Your task to perform on an android device: Search for macbook pro 15 inch on walmart.com, select the first entry, add it to the cart, then select checkout. Image 0: 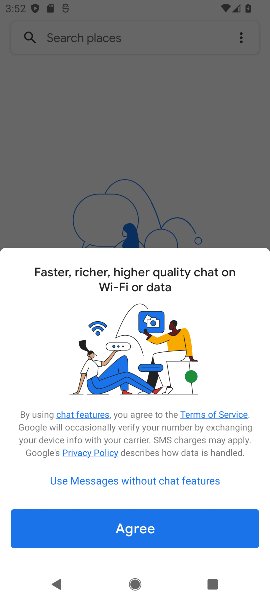
Step 0: press home button
Your task to perform on an android device: Search for macbook pro 15 inch on walmart.com, select the first entry, add it to the cart, then select checkout. Image 1: 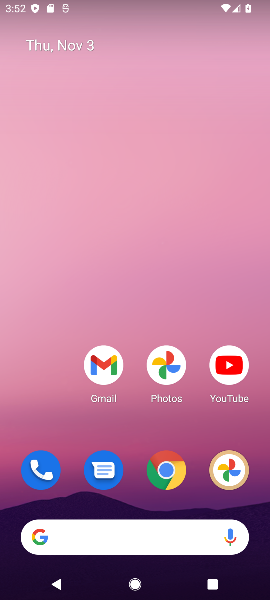
Step 1: click (156, 469)
Your task to perform on an android device: Search for macbook pro 15 inch on walmart.com, select the first entry, add it to the cart, then select checkout. Image 2: 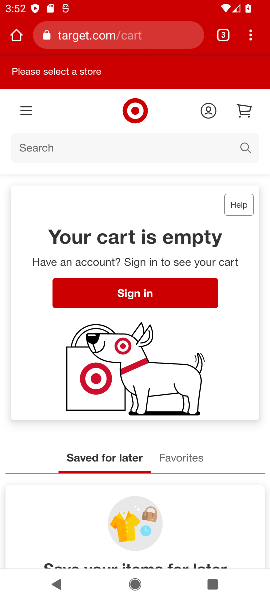
Step 2: click (226, 31)
Your task to perform on an android device: Search for macbook pro 15 inch on walmart.com, select the first entry, add it to the cart, then select checkout. Image 3: 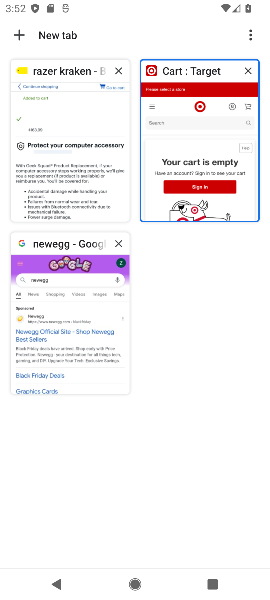
Step 3: click (15, 41)
Your task to perform on an android device: Search for macbook pro 15 inch on walmart.com, select the first entry, add it to the cart, then select checkout. Image 4: 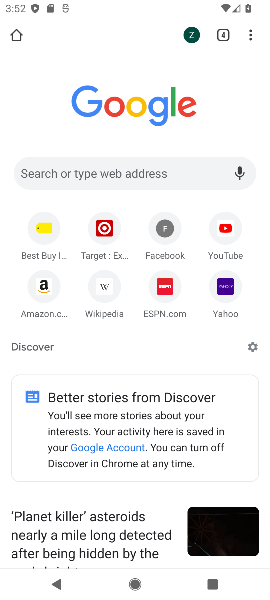
Step 4: click (113, 180)
Your task to perform on an android device: Search for macbook pro 15 inch on walmart.com, select the first entry, add it to the cart, then select checkout. Image 5: 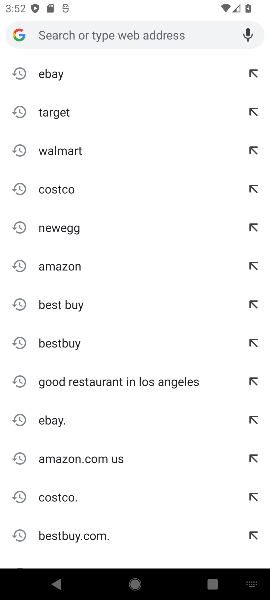
Step 5: type "walmart"
Your task to perform on an android device: Search for macbook pro 15 inch on walmart.com, select the first entry, add it to the cart, then select checkout. Image 6: 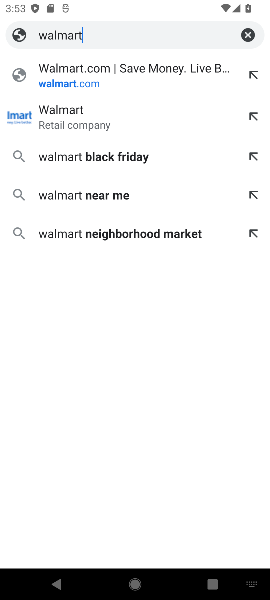
Step 6: click (77, 72)
Your task to perform on an android device: Search for macbook pro 15 inch on walmart.com, select the first entry, add it to the cart, then select checkout. Image 7: 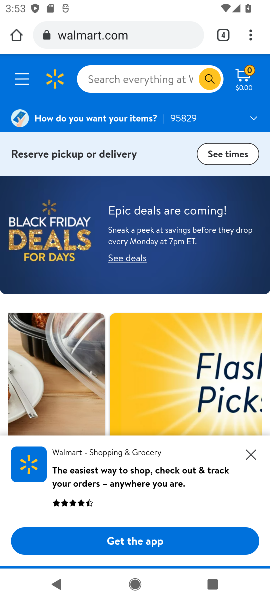
Step 7: click (127, 76)
Your task to perform on an android device: Search for macbook pro 15 inch on walmart.com, select the first entry, add it to the cart, then select checkout. Image 8: 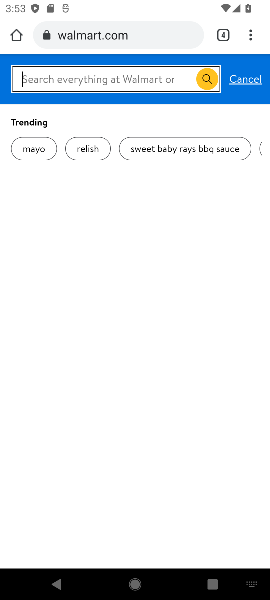
Step 8: type "macbook pro 15 inch"
Your task to perform on an android device: Search for macbook pro 15 inch on walmart.com, select the first entry, add it to the cart, then select checkout. Image 9: 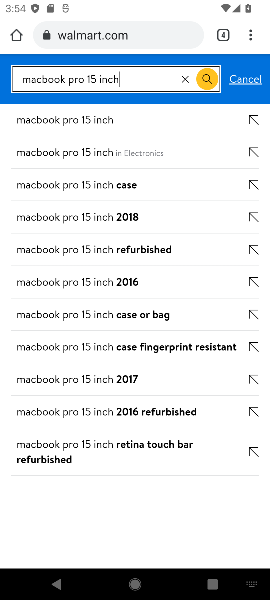
Step 9: click (102, 157)
Your task to perform on an android device: Search for macbook pro 15 inch on walmart.com, select the first entry, add it to the cart, then select checkout. Image 10: 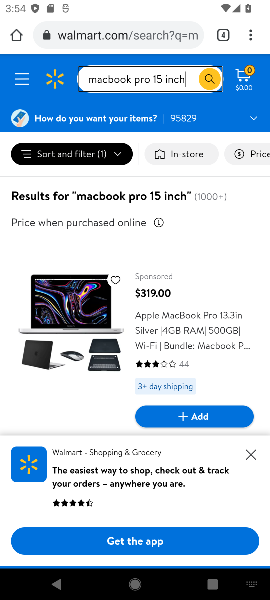
Step 10: click (253, 450)
Your task to perform on an android device: Search for macbook pro 15 inch on walmart.com, select the first entry, add it to the cart, then select checkout. Image 11: 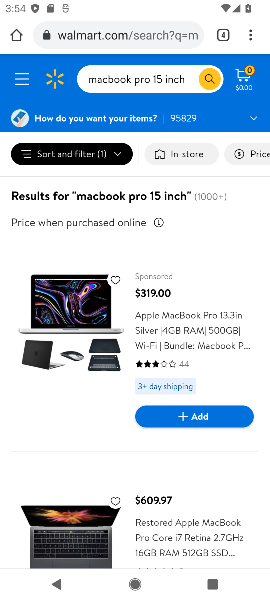
Step 11: click (214, 419)
Your task to perform on an android device: Search for macbook pro 15 inch on walmart.com, select the first entry, add it to the cart, then select checkout. Image 12: 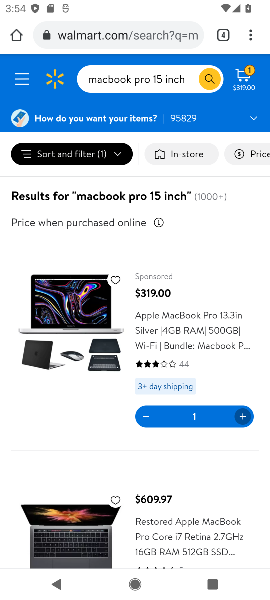
Step 12: task complete